Your task to perform on an android device: open app "AliExpress" (install if not already installed) Image 0: 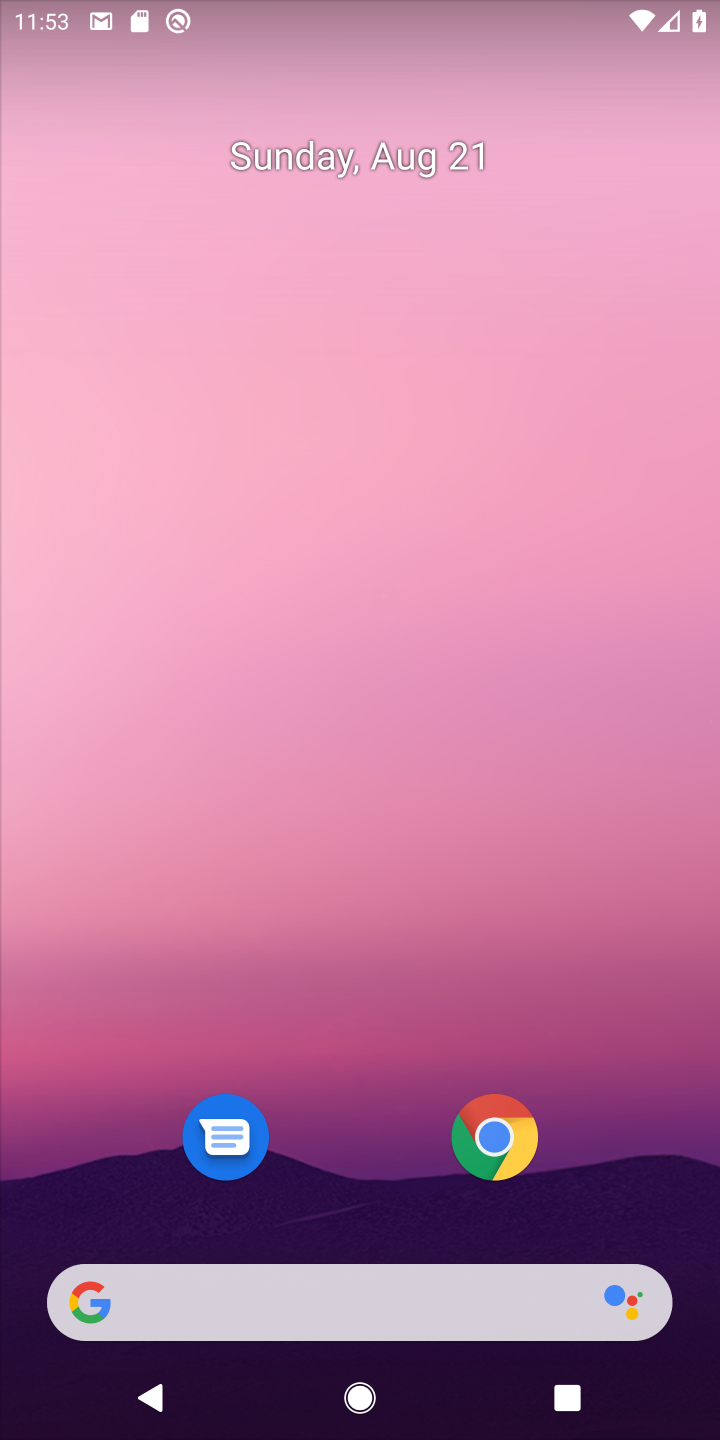
Step 0: drag from (666, 1142) to (601, 175)
Your task to perform on an android device: open app "AliExpress" (install if not already installed) Image 1: 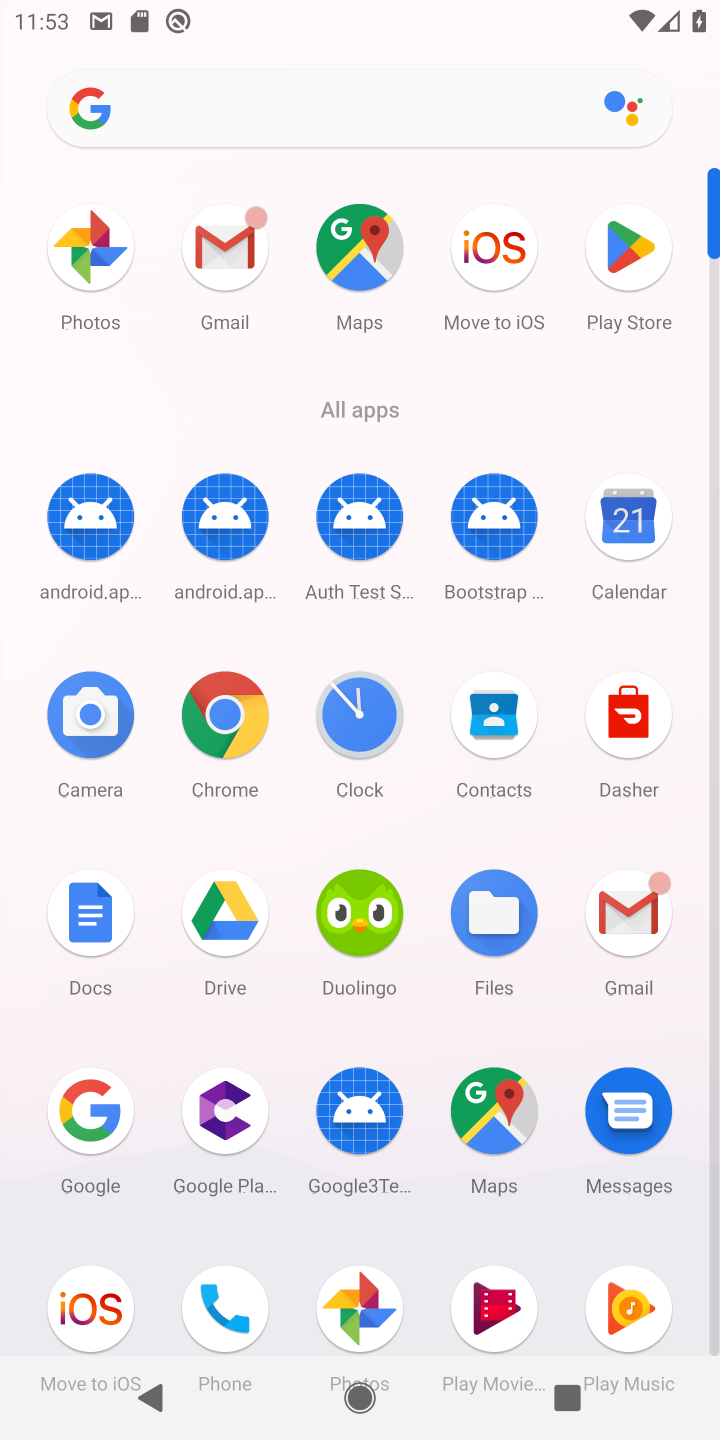
Step 1: drag from (431, 1223) to (390, 417)
Your task to perform on an android device: open app "AliExpress" (install if not already installed) Image 2: 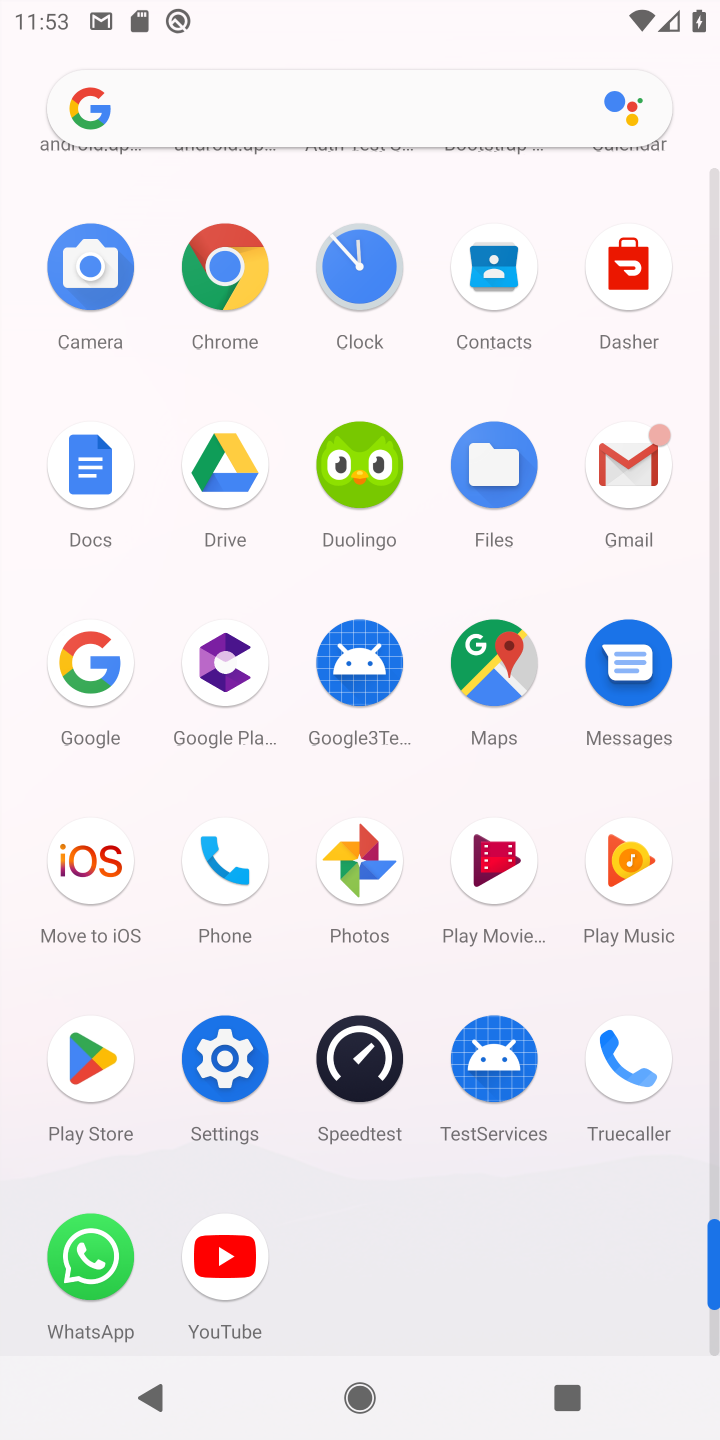
Step 2: click (89, 1061)
Your task to perform on an android device: open app "AliExpress" (install if not already installed) Image 3: 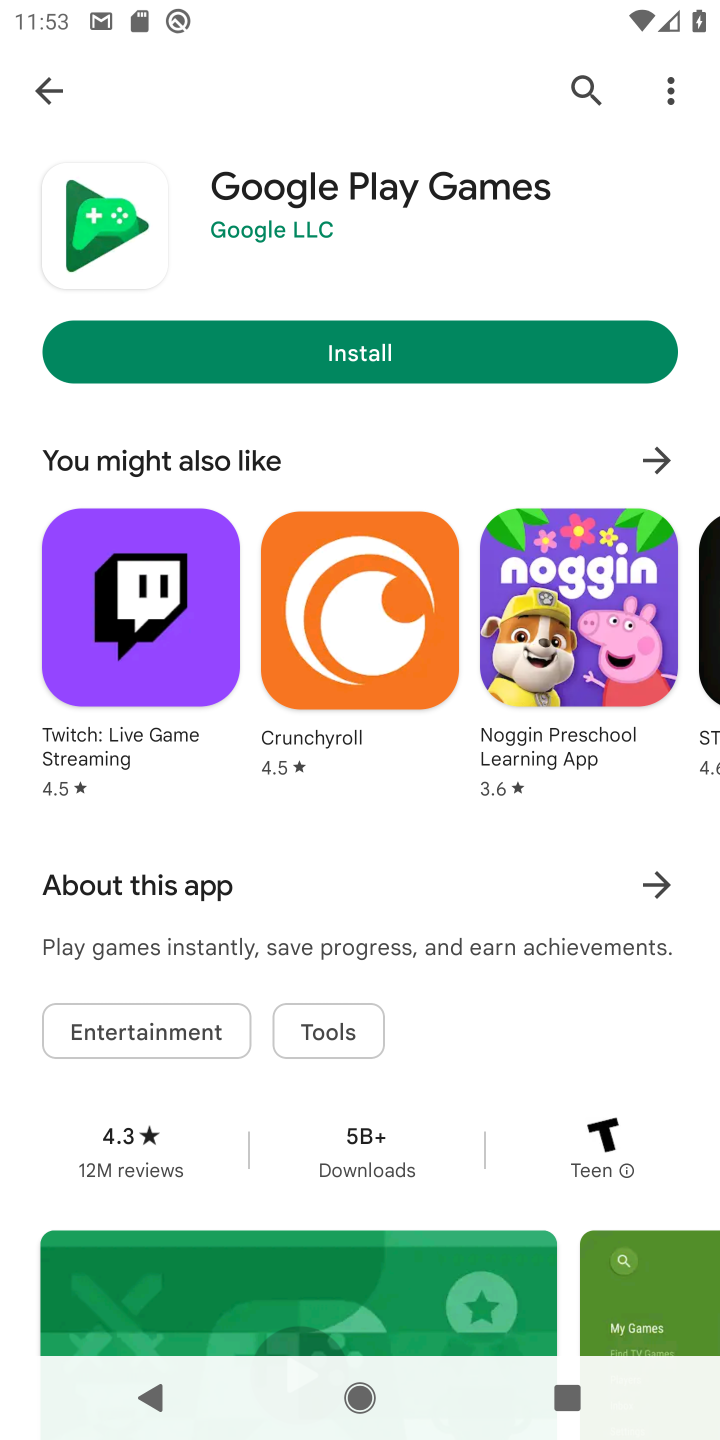
Step 3: click (578, 71)
Your task to perform on an android device: open app "AliExpress" (install if not already installed) Image 4: 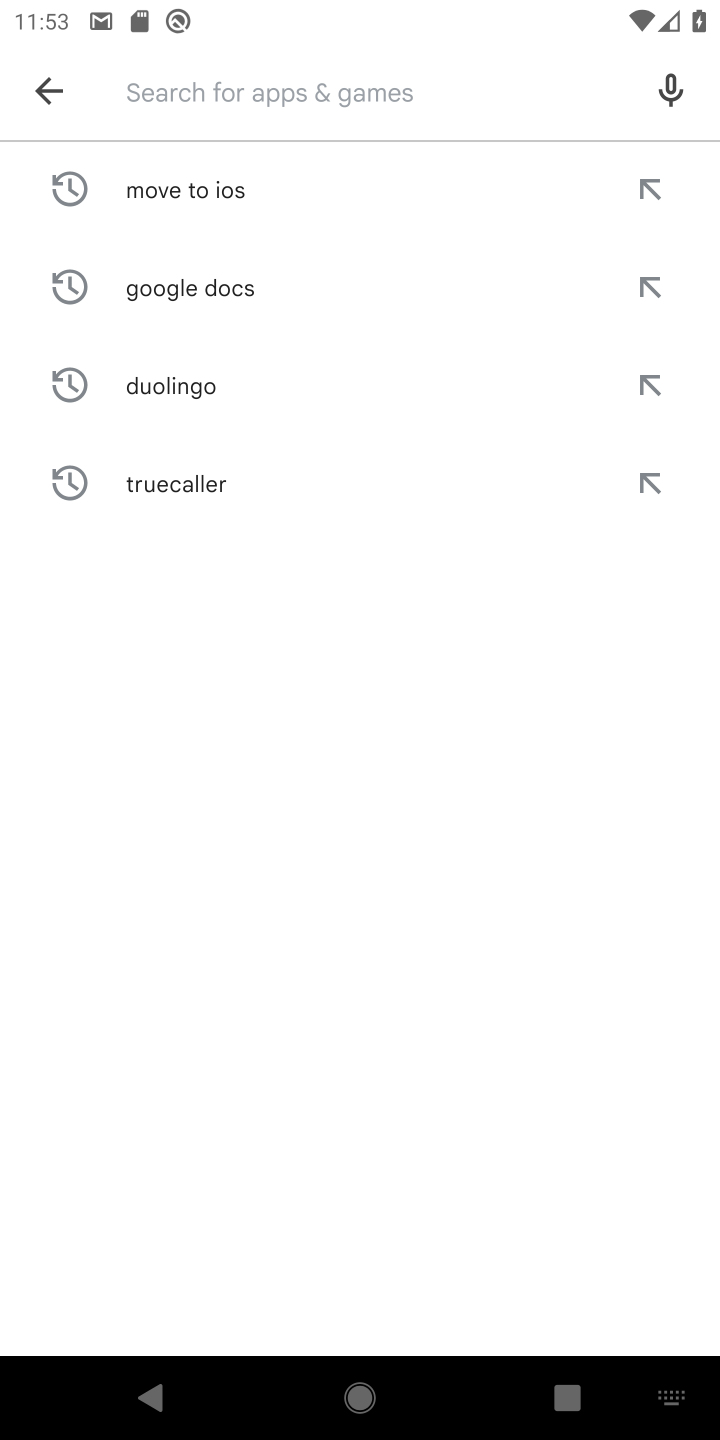
Step 4: type "AliExpress"
Your task to perform on an android device: open app "AliExpress" (install if not already installed) Image 5: 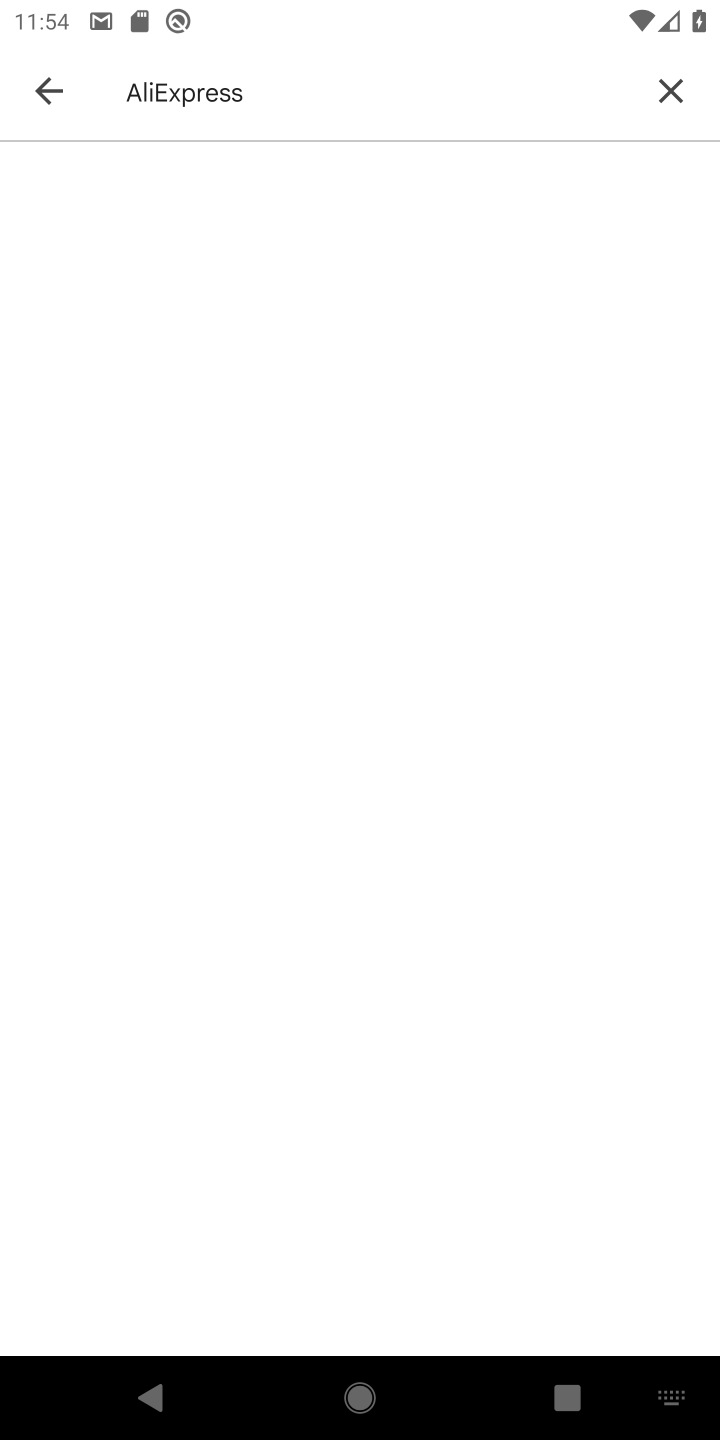
Step 5: task complete